Your task to perform on an android device: open sync settings in chrome Image 0: 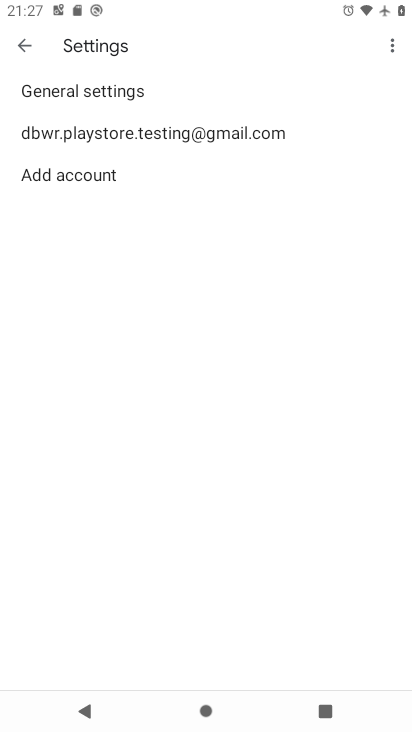
Step 0: press home button
Your task to perform on an android device: open sync settings in chrome Image 1: 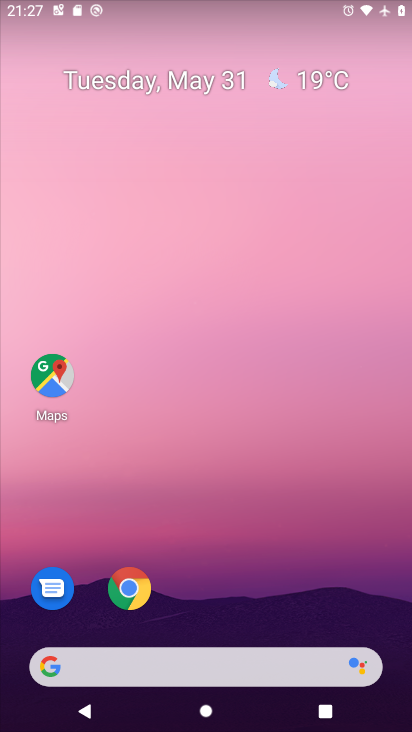
Step 1: click (133, 601)
Your task to perform on an android device: open sync settings in chrome Image 2: 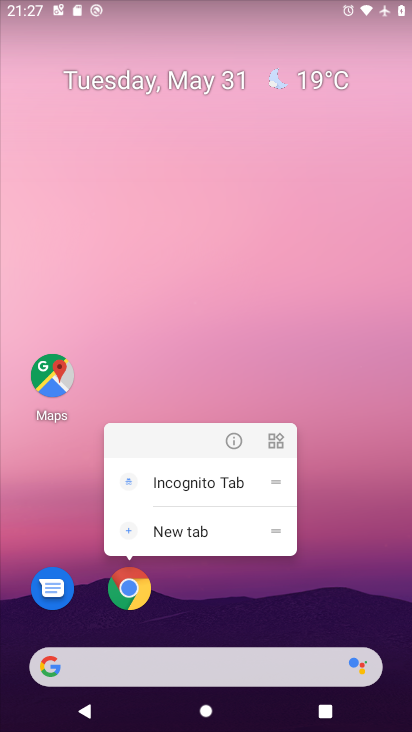
Step 2: click (134, 587)
Your task to perform on an android device: open sync settings in chrome Image 3: 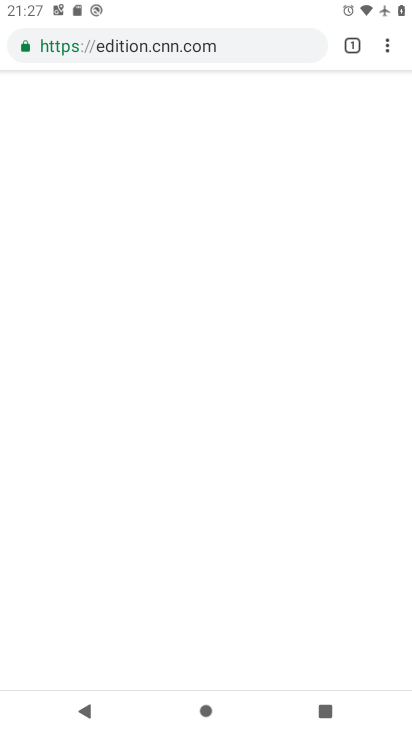
Step 3: click (386, 46)
Your task to perform on an android device: open sync settings in chrome Image 4: 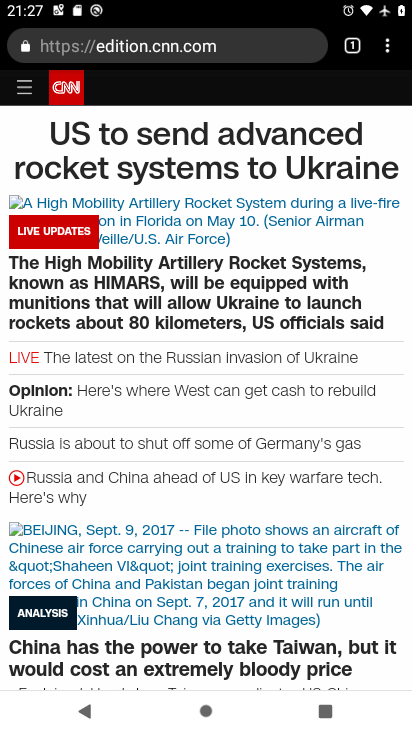
Step 4: drag from (392, 43) to (257, 511)
Your task to perform on an android device: open sync settings in chrome Image 5: 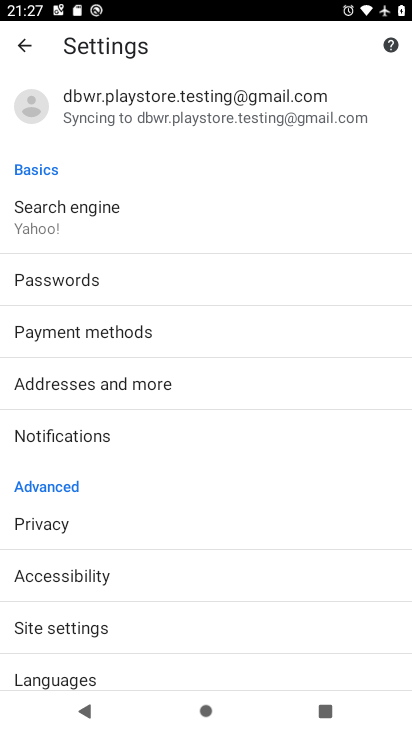
Step 5: click (190, 123)
Your task to perform on an android device: open sync settings in chrome Image 6: 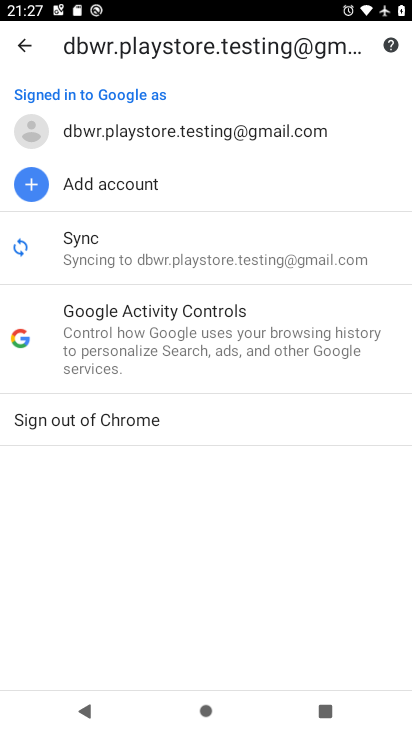
Step 6: click (146, 250)
Your task to perform on an android device: open sync settings in chrome Image 7: 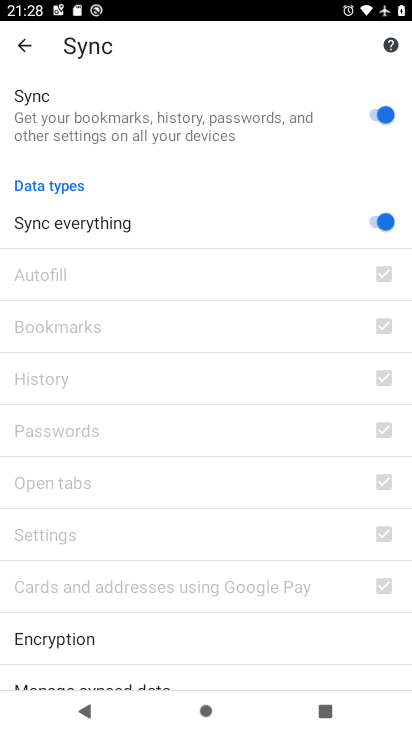
Step 7: task complete